Your task to perform on an android device: manage bookmarks in the chrome app Image 0: 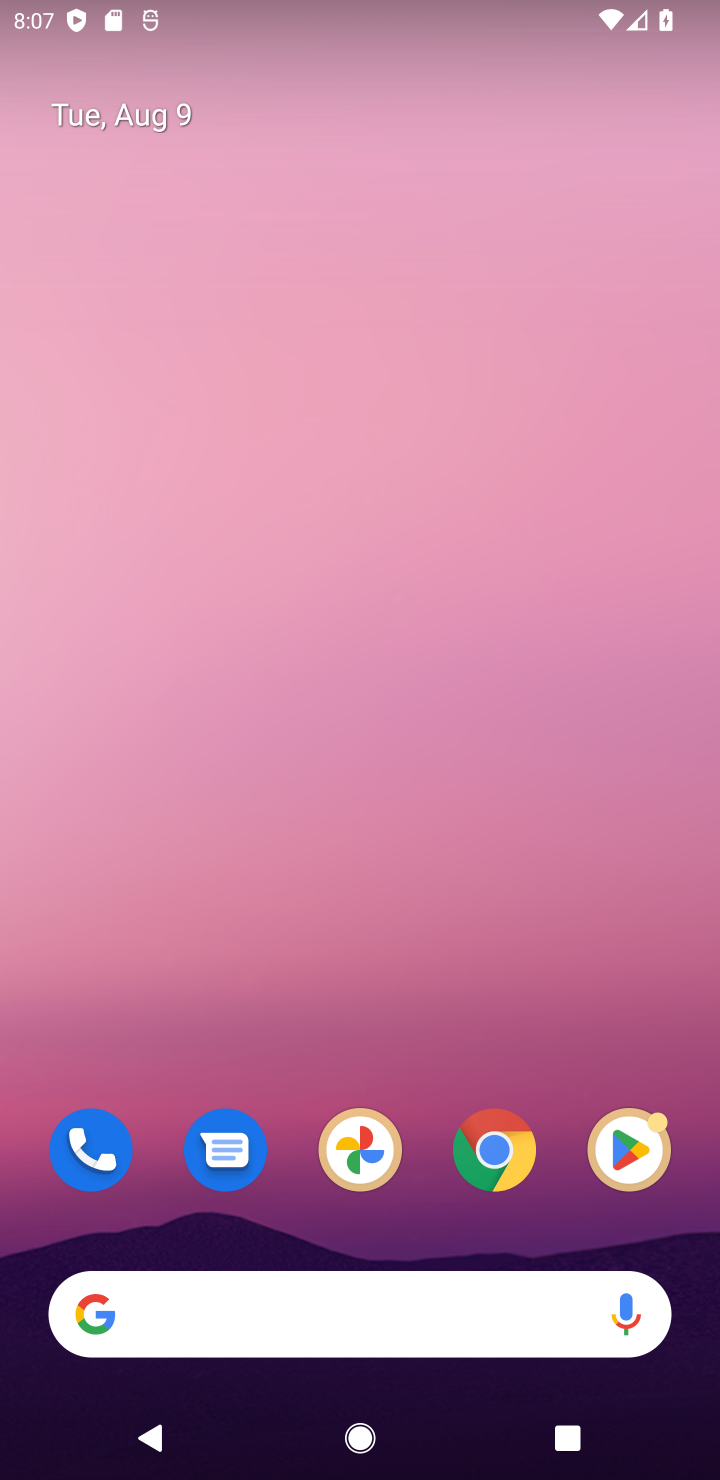
Step 0: click (490, 1148)
Your task to perform on an android device: manage bookmarks in the chrome app Image 1: 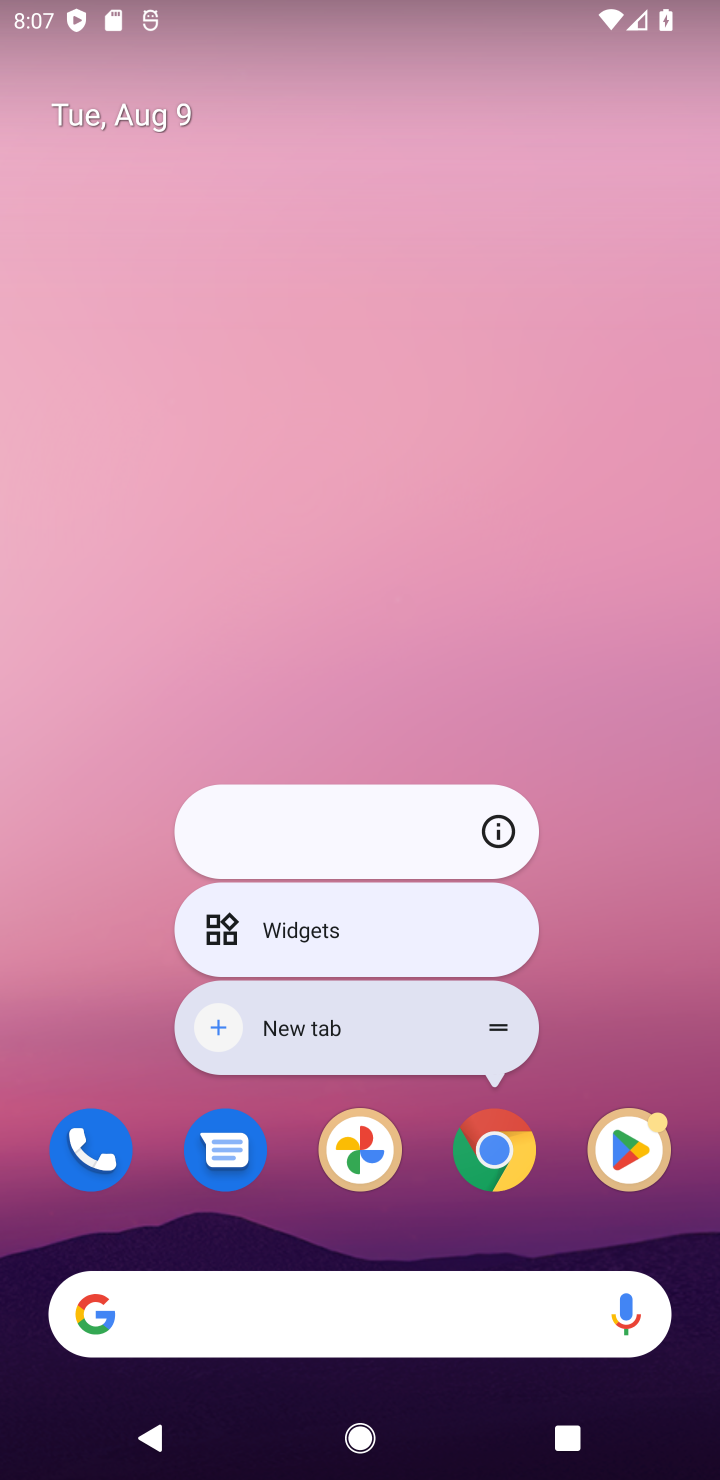
Step 1: click (490, 1151)
Your task to perform on an android device: manage bookmarks in the chrome app Image 2: 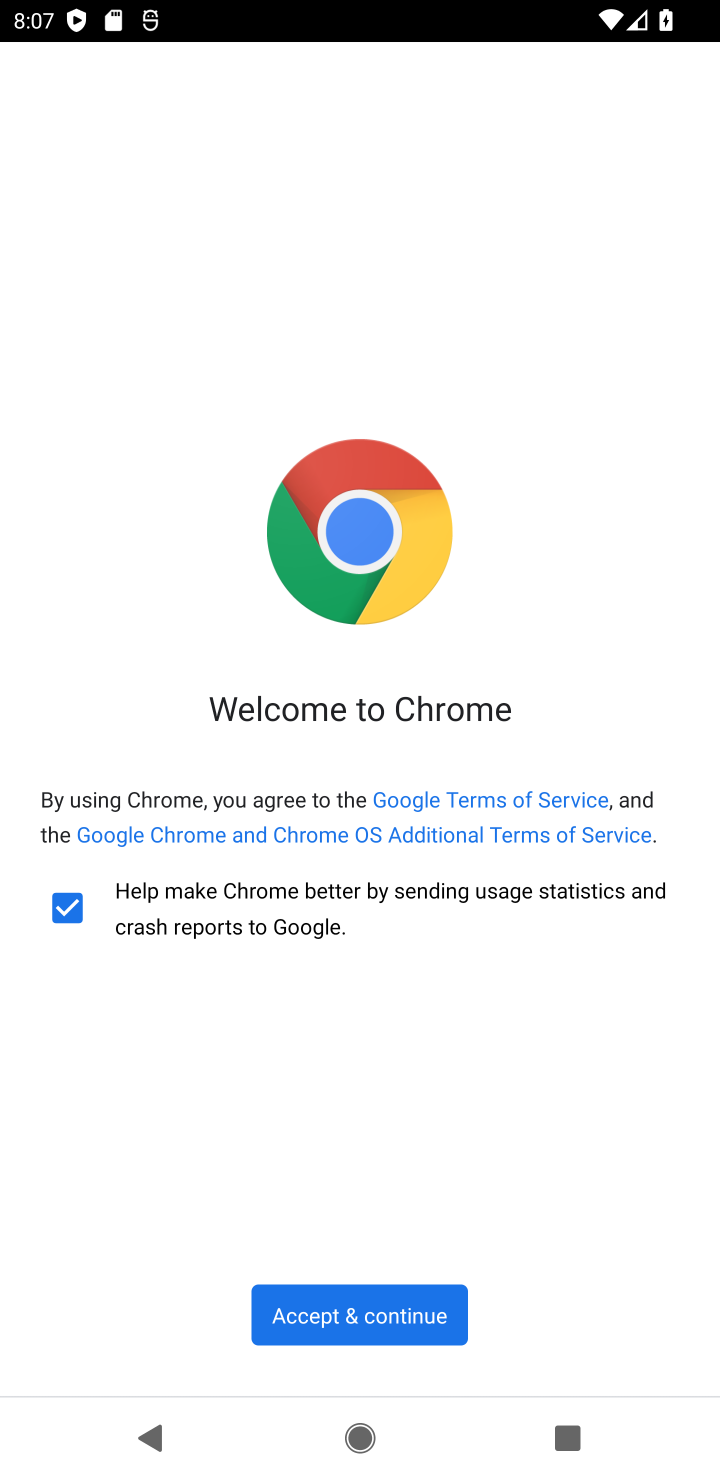
Step 2: click (355, 1303)
Your task to perform on an android device: manage bookmarks in the chrome app Image 3: 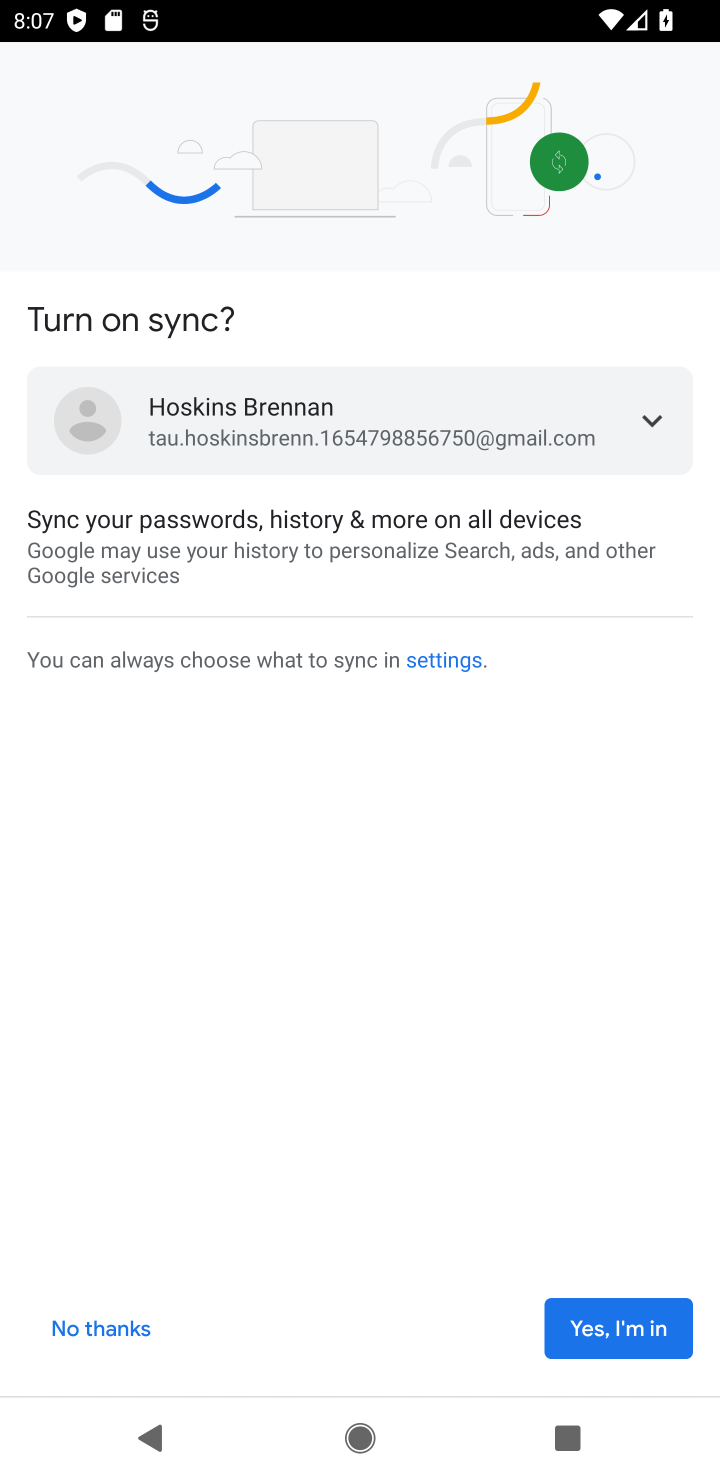
Step 3: click (638, 1313)
Your task to perform on an android device: manage bookmarks in the chrome app Image 4: 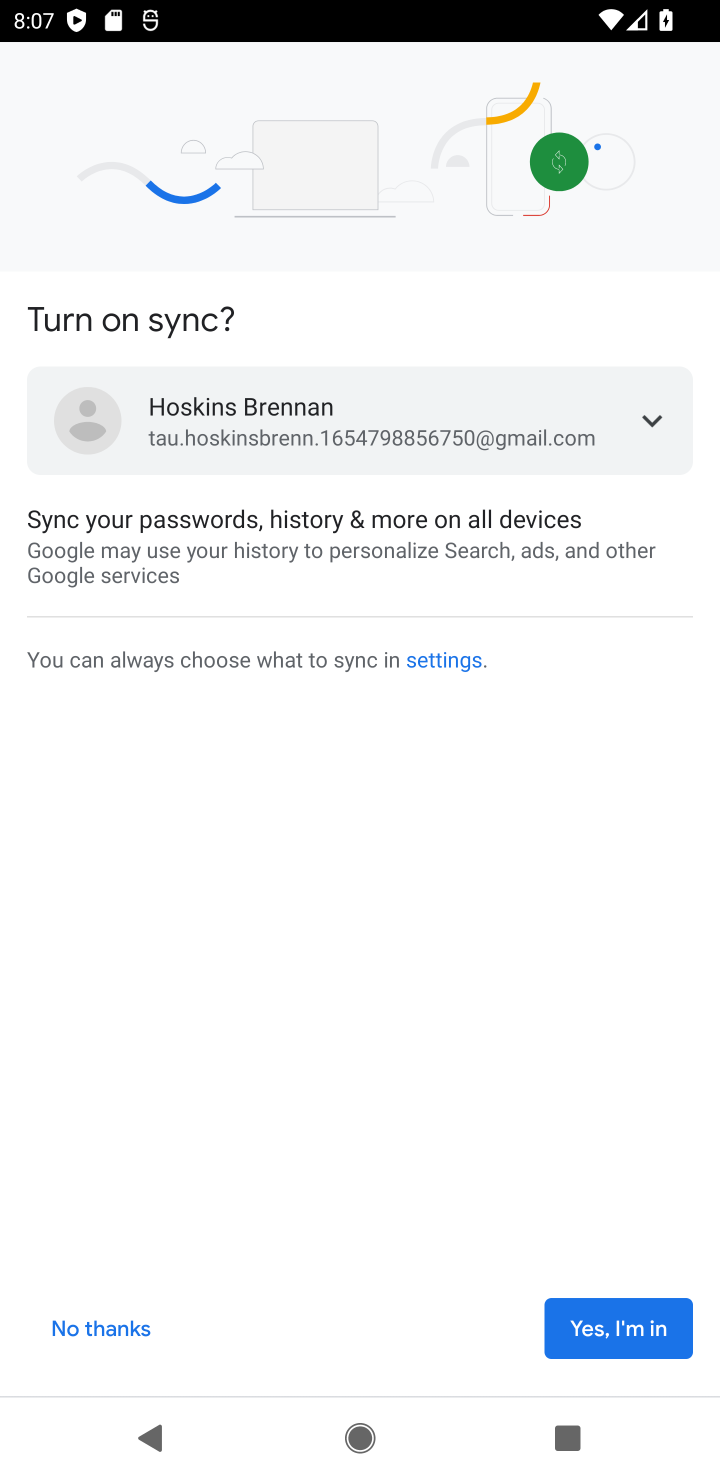
Step 4: click (638, 1333)
Your task to perform on an android device: manage bookmarks in the chrome app Image 5: 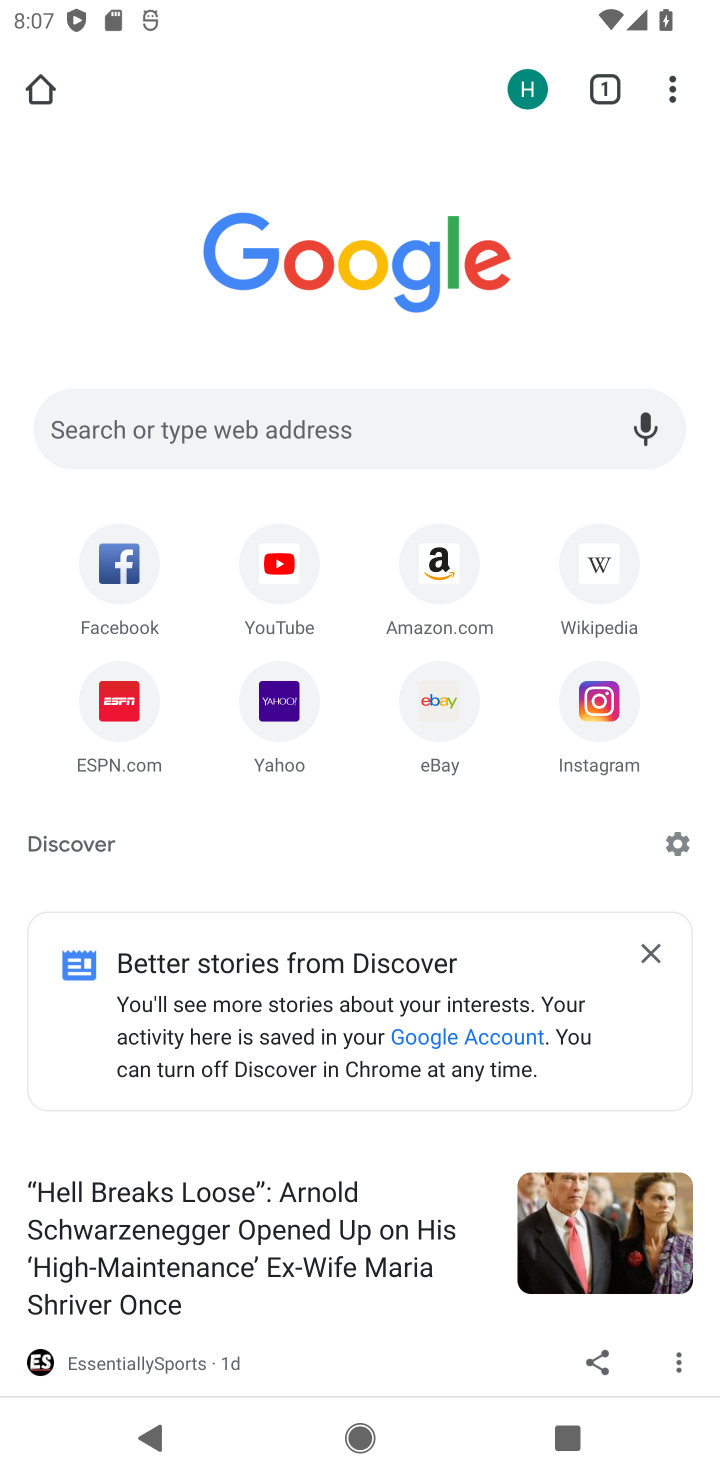
Step 5: drag from (674, 82) to (493, 514)
Your task to perform on an android device: manage bookmarks in the chrome app Image 6: 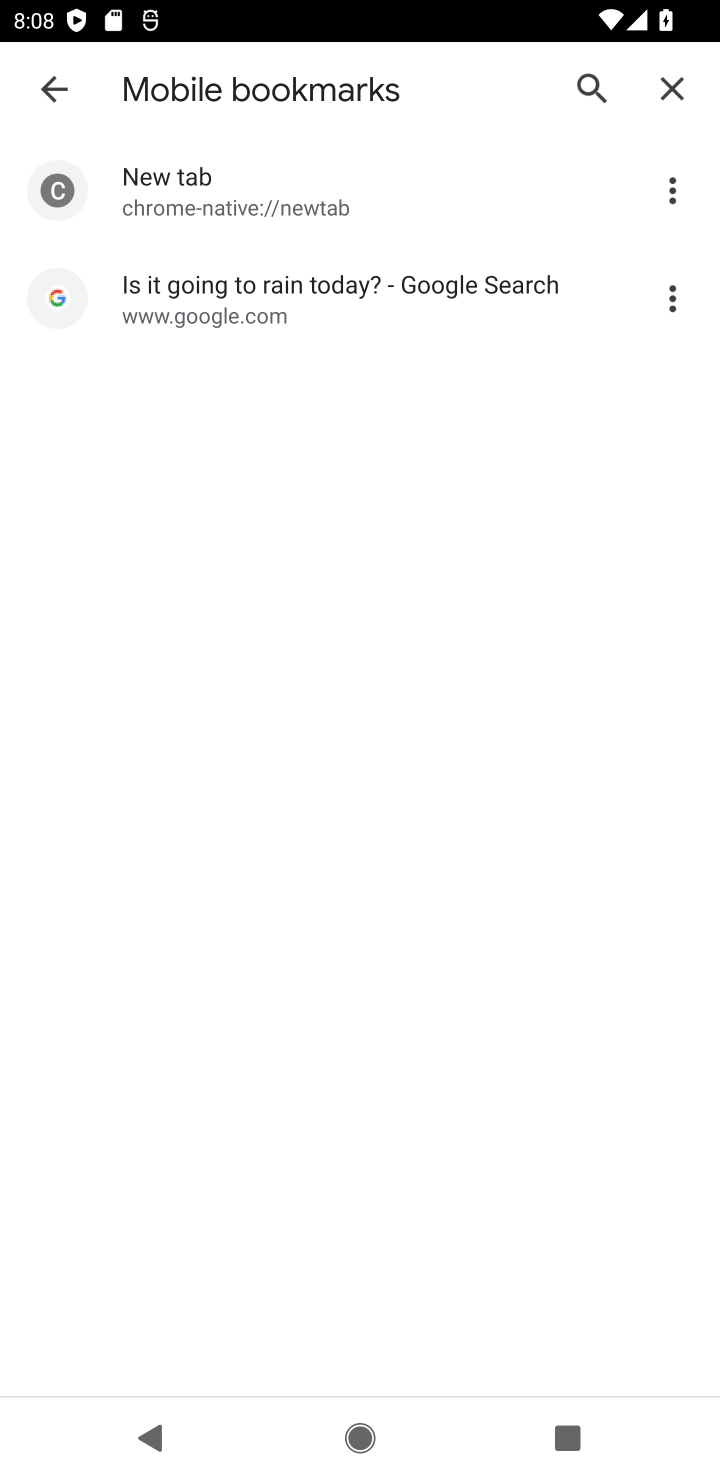
Step 6: click (684, 275)
Your task to perform on an android device: manage bookmarks in the chrome app Image 7: 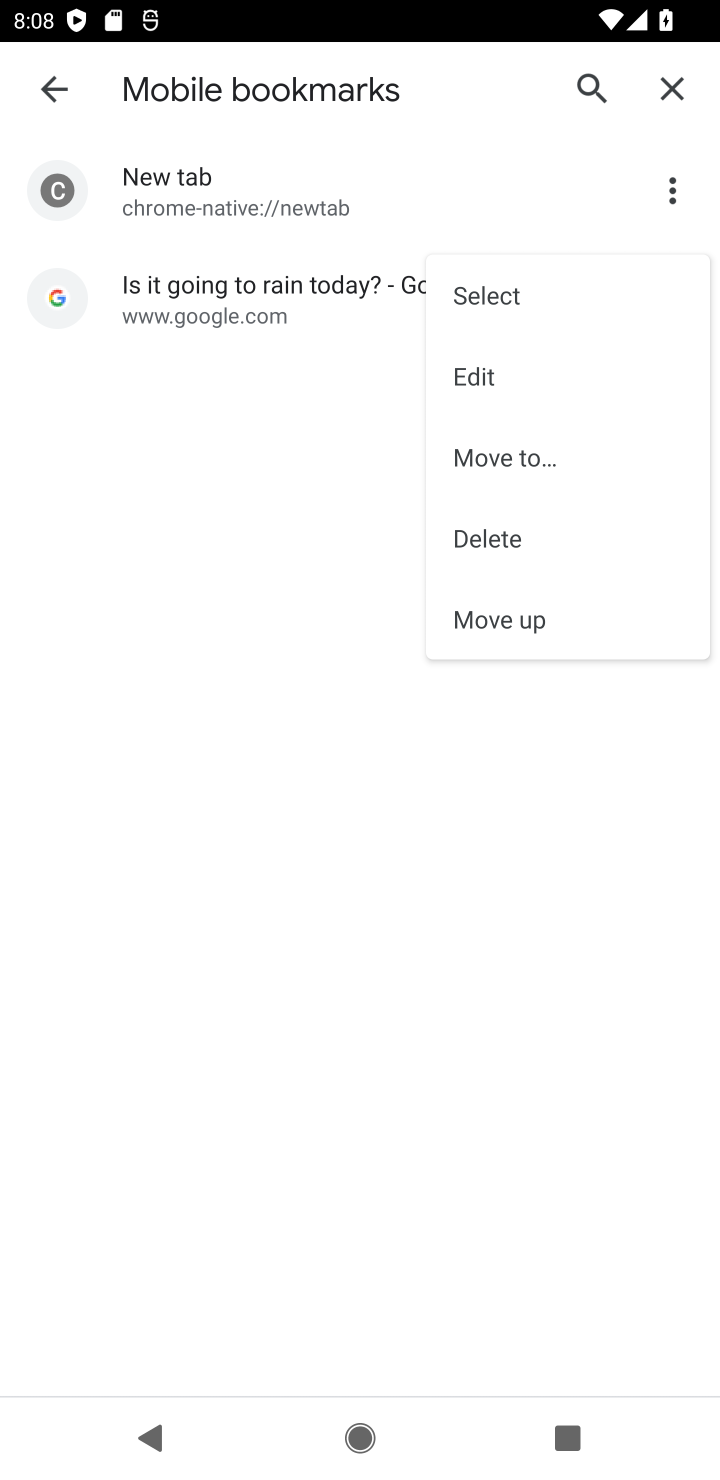
Step 7: click (549, 535)
Your task to perform on an android device: manage bookmarks in the chrome app Image 8: 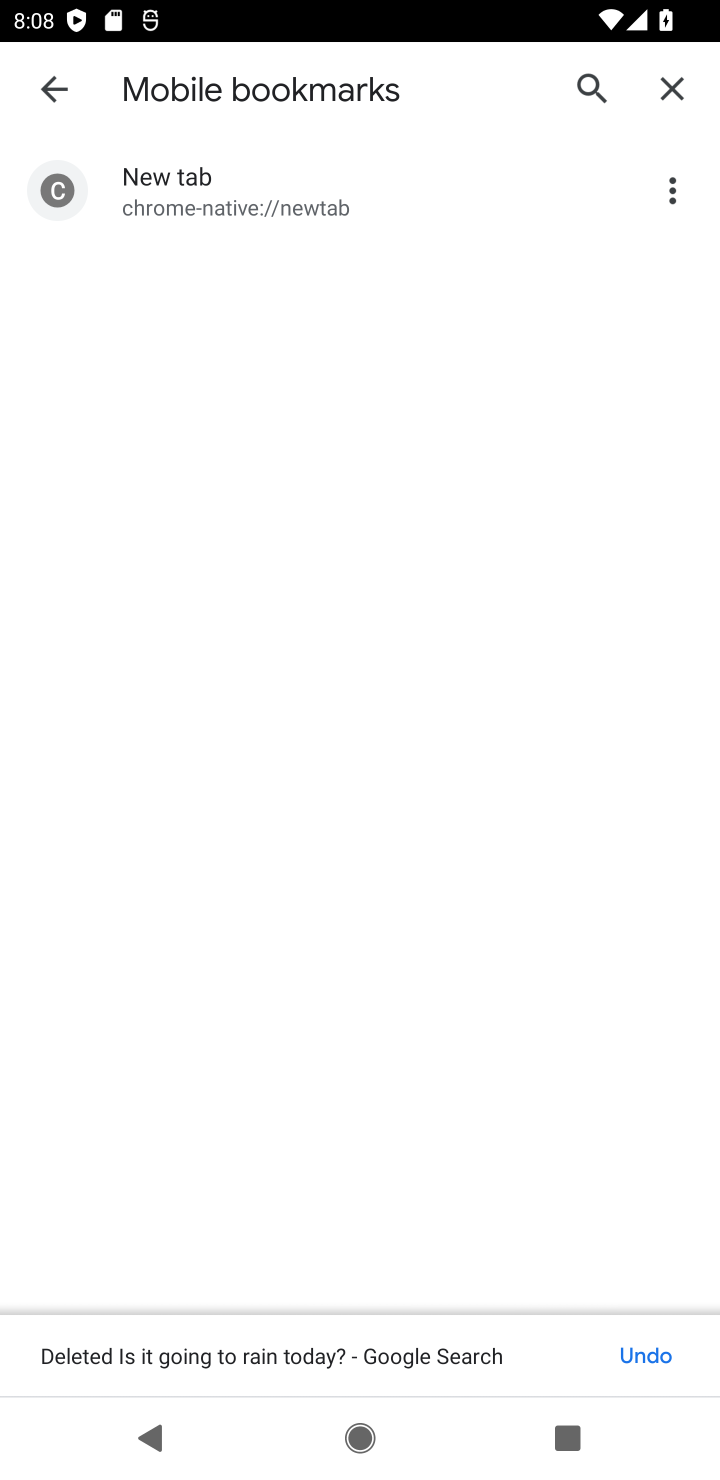
Step 8: task complete